Your task to perform on an android device: turn on bluetooth scan Image 0: 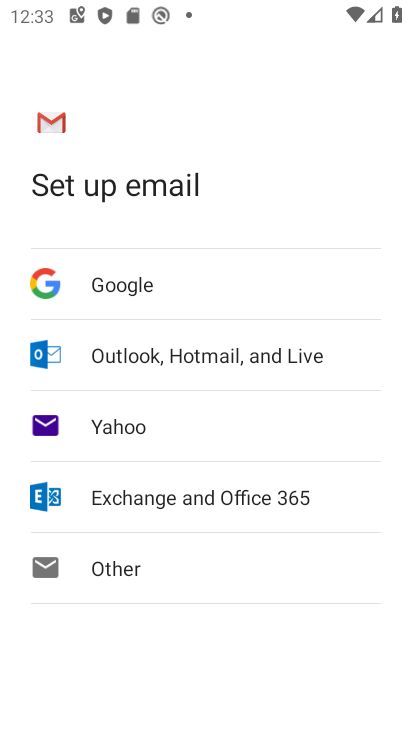
Step 0: press home button
Your task to perform on an android device: turn on bluetooth scan Image 1: 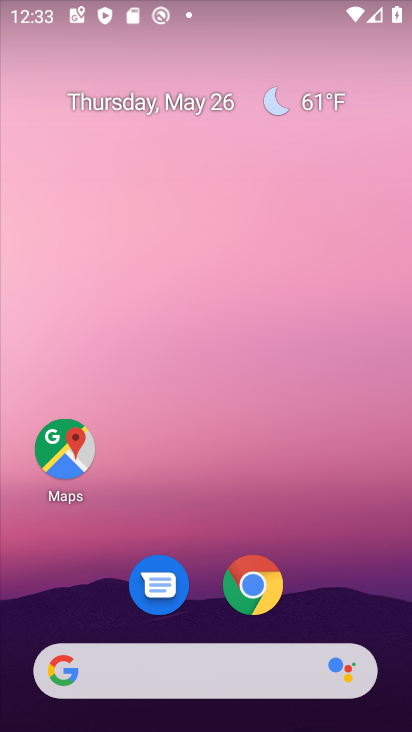
Step 1: drag from (203, 513) to (240, 14)
Your task to perform on an android device: turn on bluetooth scan Image 2: 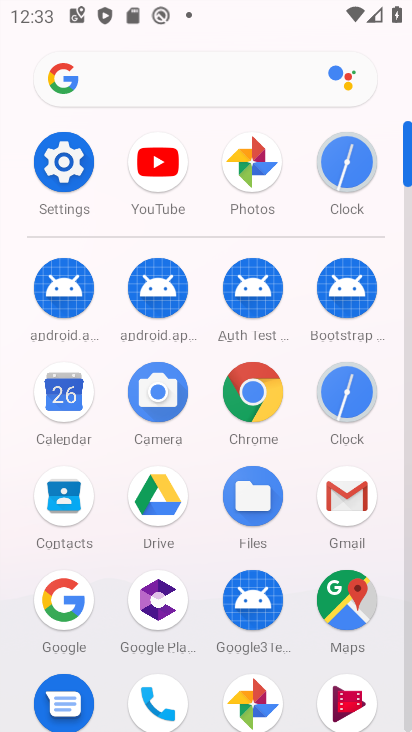
Step 2: click (75, 167)
Your task to perform on an android device: turn on bluetooth scan Image 3: 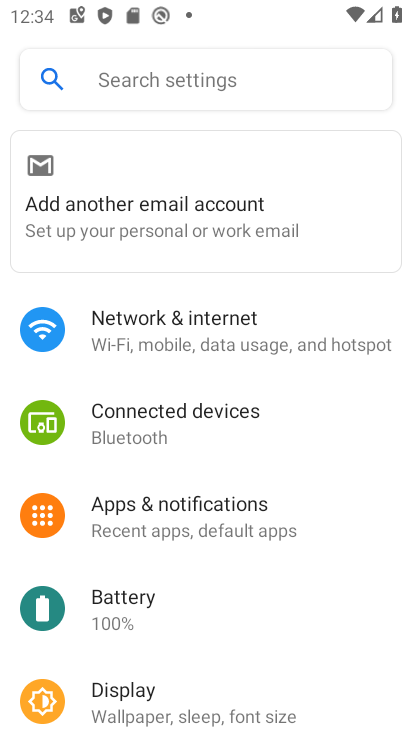
Step 3: drag from (208, 623) to (212, 32)
Your task to perform on an android device: turn on bluetooth scan Image 4: 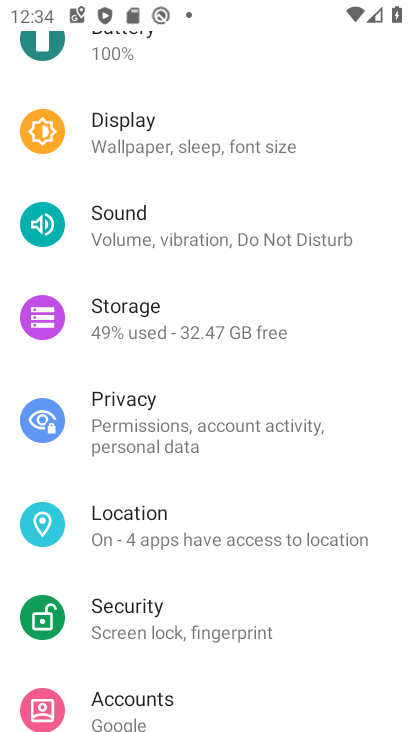
Step 4: click (191, 522)
Your task to perform on an android device: turn on bluetooth scan Image 5: 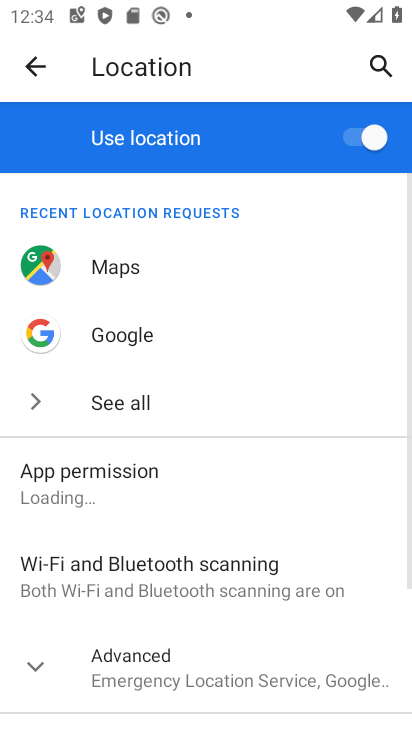
Step 5: click (196, 582)
Your task to perform on an android device: turn on bluetooth scan Image 6: 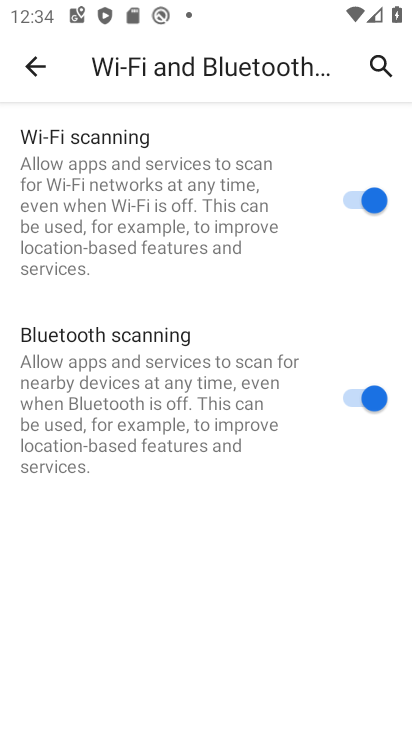
Step 6: task complete